Your task to perform on an android device: create a new album in the google photos Image 0: 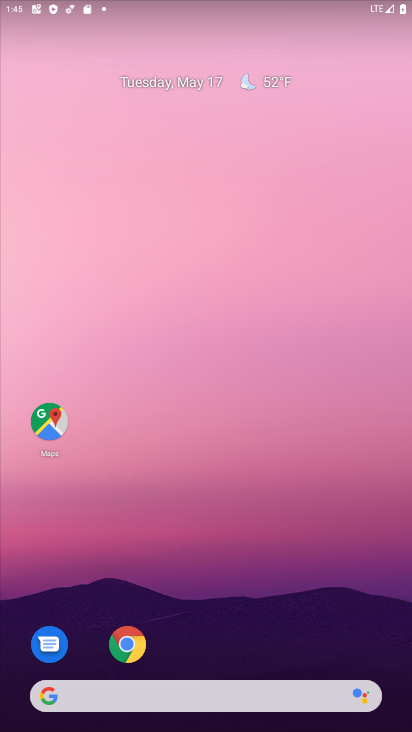
Step 0: drag from (216, 697) to (278, 221)
Your task to perform on an android device: create a new album in the google photos Image 1: 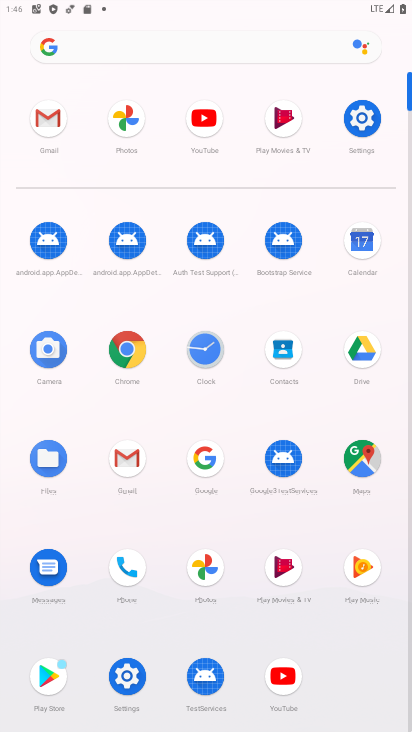
Step 1: click (201, 569)
Your task to perform on an android device: create a new album in the google photos Image 2: 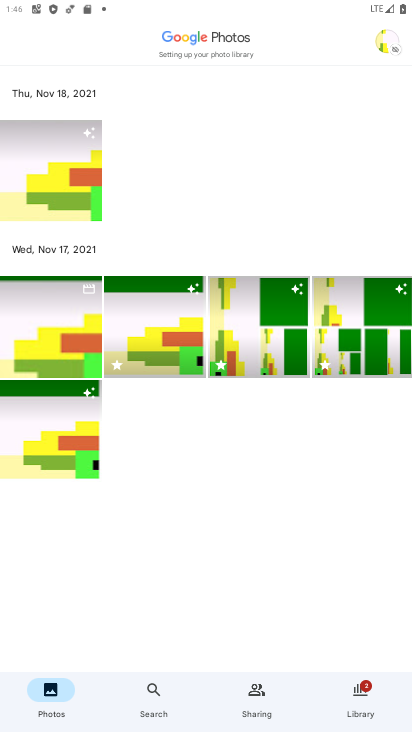
Step 2: click (369, 706)
Your task to perform on an android device: create a new album in the google photos Image 3: 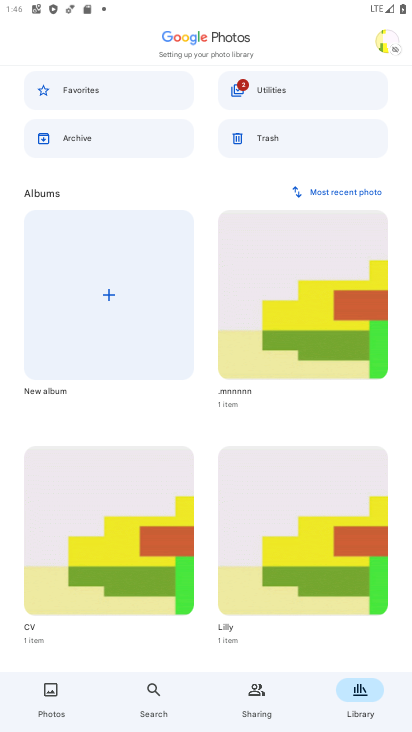
Step 3: click (87, 299)
Your task to perform on an android device: create a new album in the google photos Image 4: 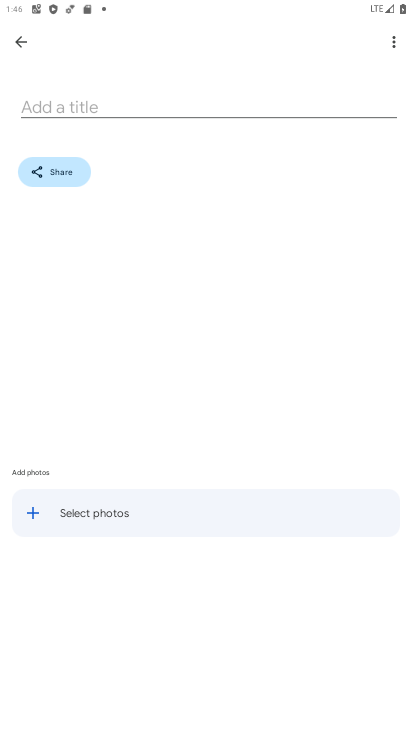
Step 4: click (140, 101)
Your task to perform on an android device: create a new album in the google photos Image 5: 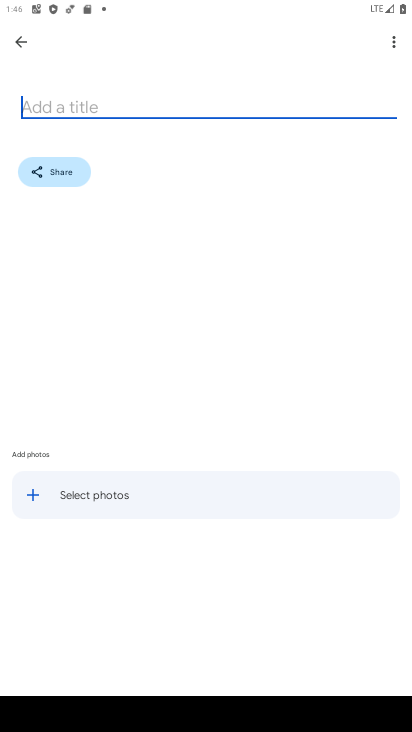
Step 5: type "ncbvm"
Your task to perform on an android device: create a new album in the google photos Image 6: 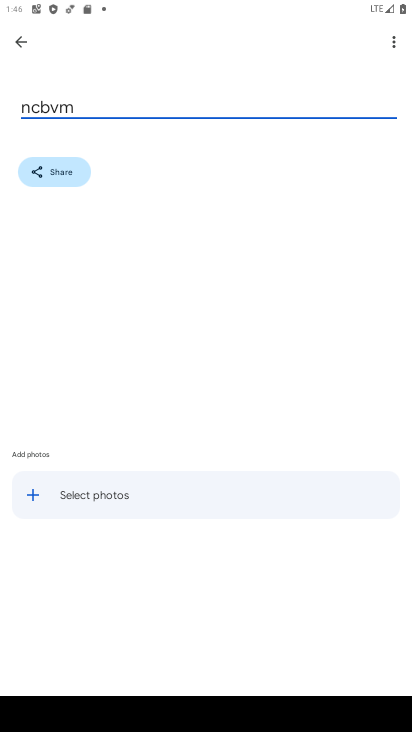
Step 6: click (137, 494)
Your task to perform on an android device: create a new album in the google photos Image 7: 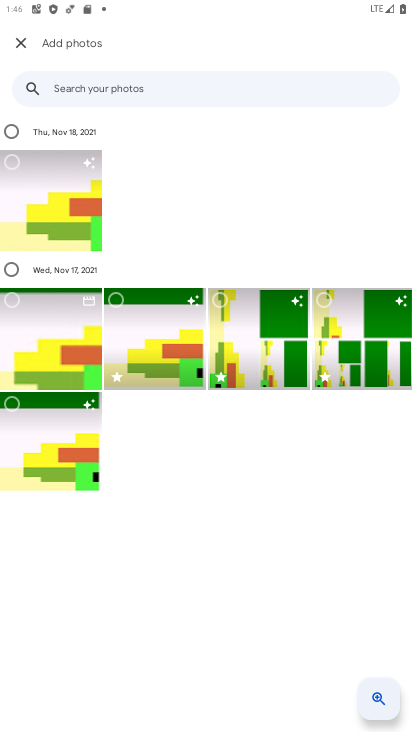
Step 7: click (9, 123)
Your task to perform on an android device: create a new album in the google photos Image 8: 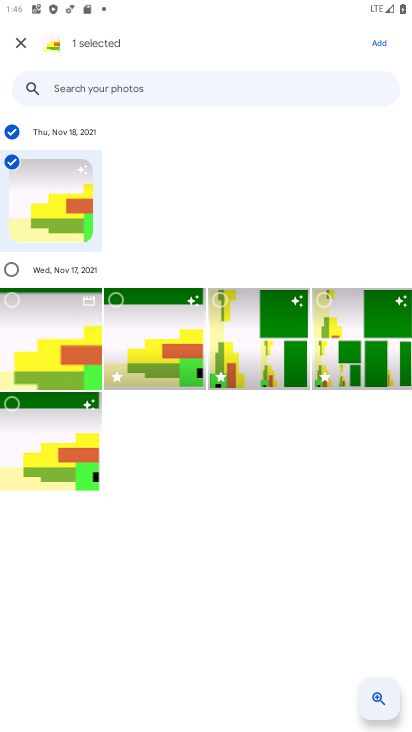
Step 8: click (13, 272)
Your task to perform on an android device: create a new album in the google photos Image 9: 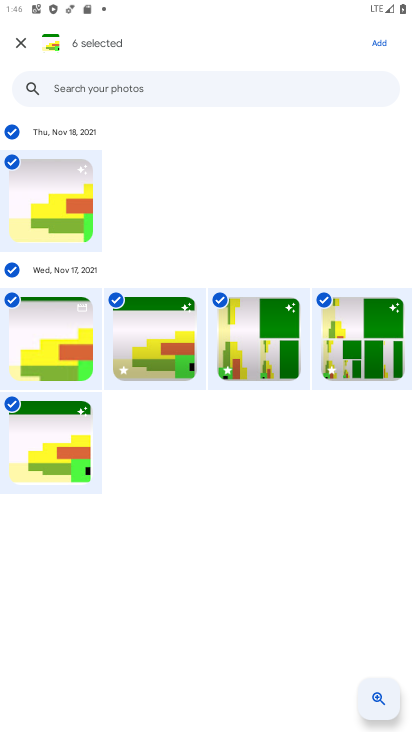
Step 9: click (382, 39)
Your task to perform on an android device: create a new album in the google photos Image 10: 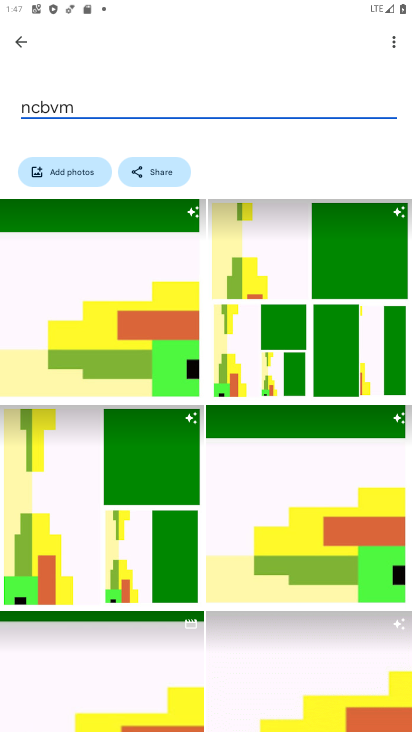
Step 10: task complete